Your task to perform on an android device: Open the web browser Image 0: 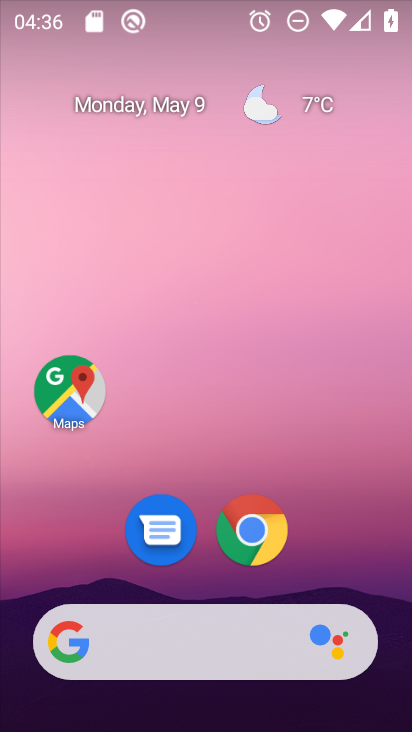
Step 0: click (250, 526)
Your task to perform on an android device: Open the web browser Image 1: 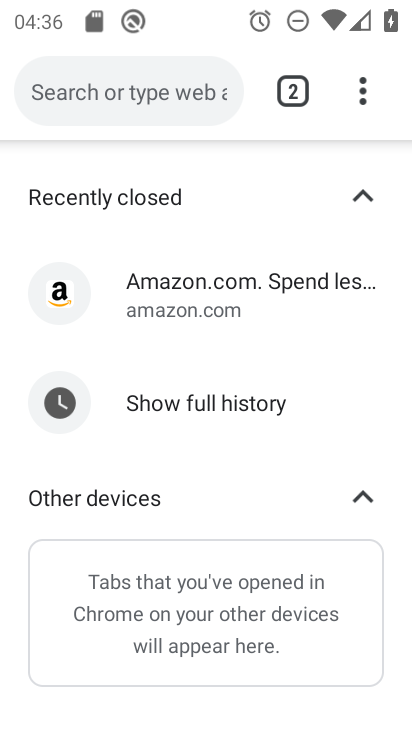
Step 1: drag from (225, 582) to (222, 225)
Your task to perform on an android device: Open the web browser Image 2: 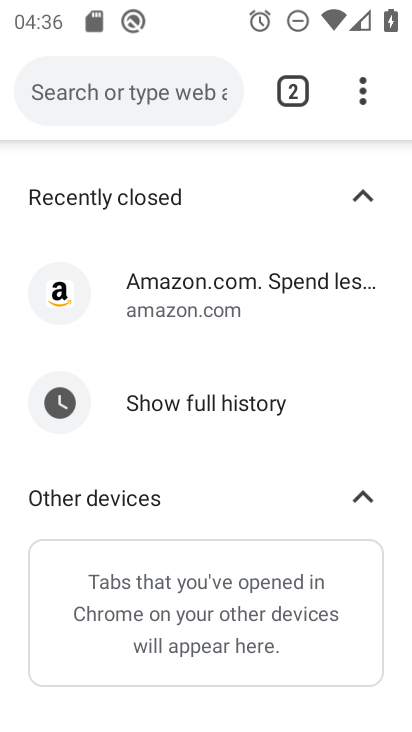
Step 2: click (289, 92)
Your task to perform on an android device: Open the web browser Image 3: 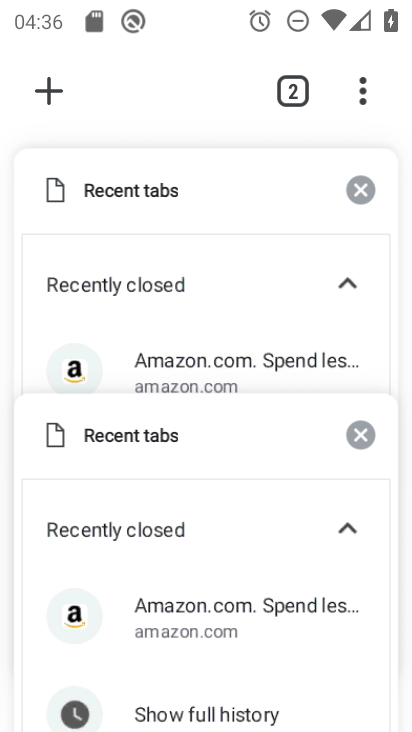
Step 3: click (353, 187)
Your task to perform on an android device: Open the web browser Image 4: 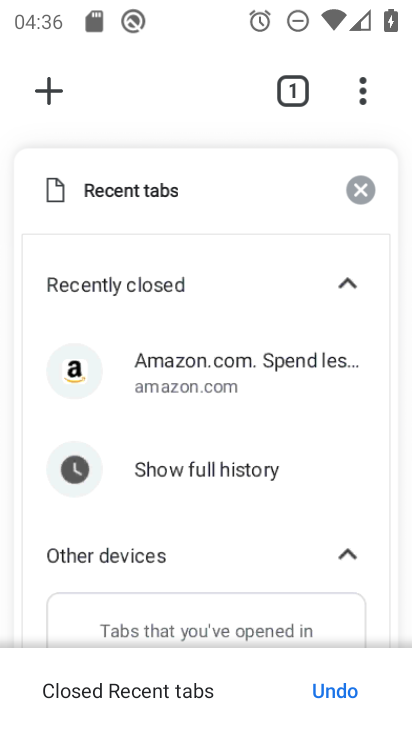
Step 4: click (353, 187)
Your task to perform on an android device: Open the web browser Image 5: 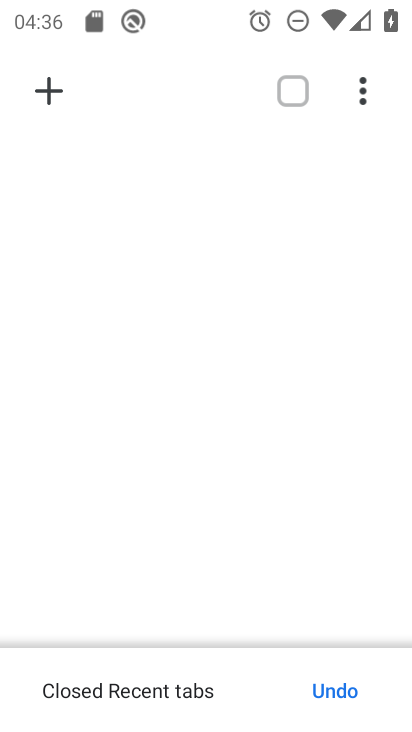
Step 5: click (53, 91)
Your task to perform on an android device: Open the web browser Image 6: 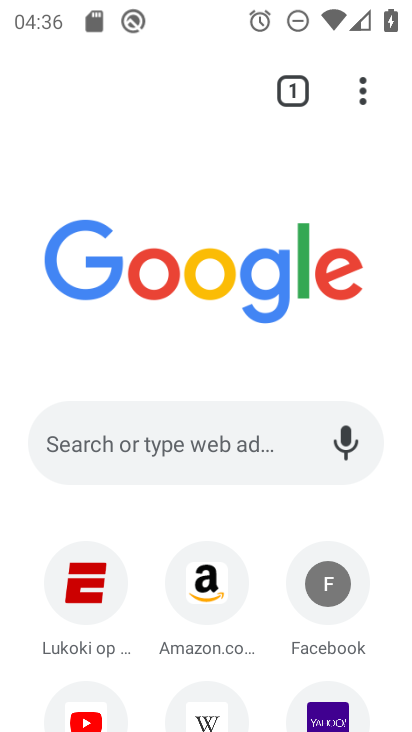
Step 6: task complete